Your task to perform on an android device: turn off data saver in the chrome app Image 0: 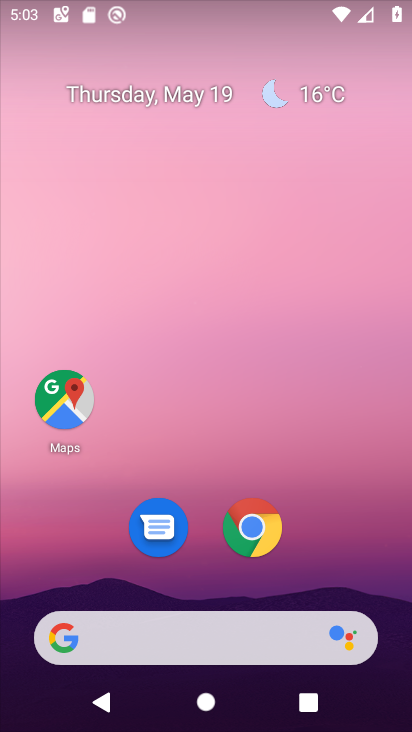
Step 0: click (258, 521)
Your task to perform on an android device: turn off data saver in the chrome app Image 1: 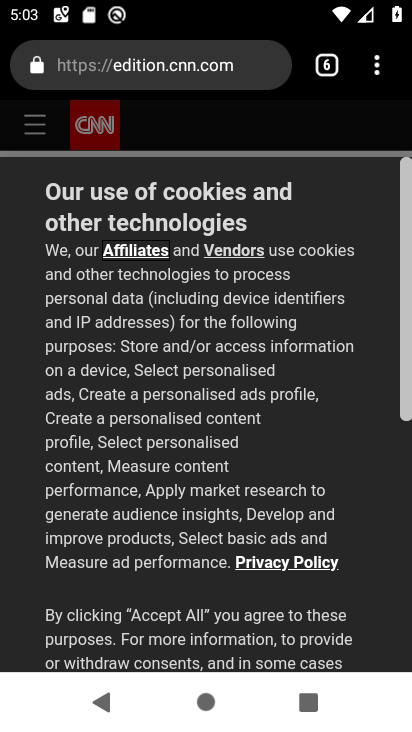
Step 1: click (365, 63)
Your task to perform on an android device: turn off data saver in the chrome app Image 2: 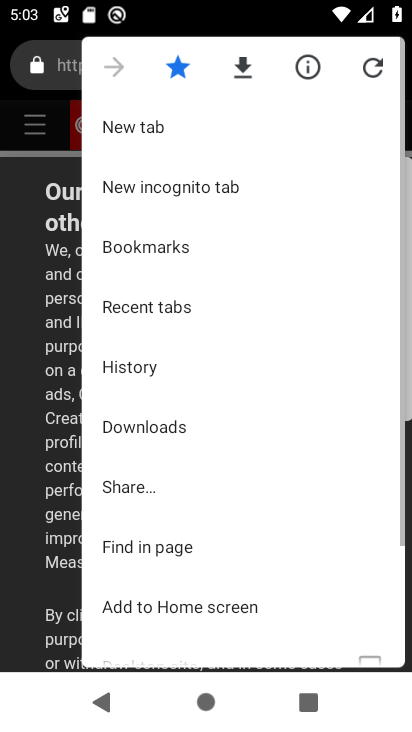
Step 2: drag from (223, 472) to (210, 102)
Your task to perform on an android device: turn off data saver in the chrome app Image 3: 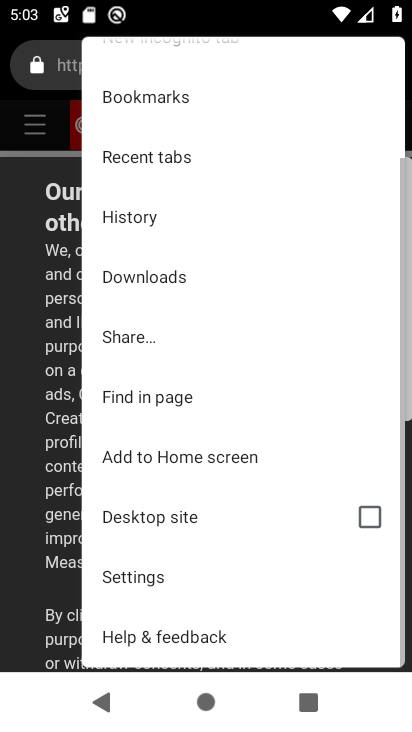
Step 3: click (191, 566)
Your task to perform on an android device: turn off data saver in the chrome app Image 4: 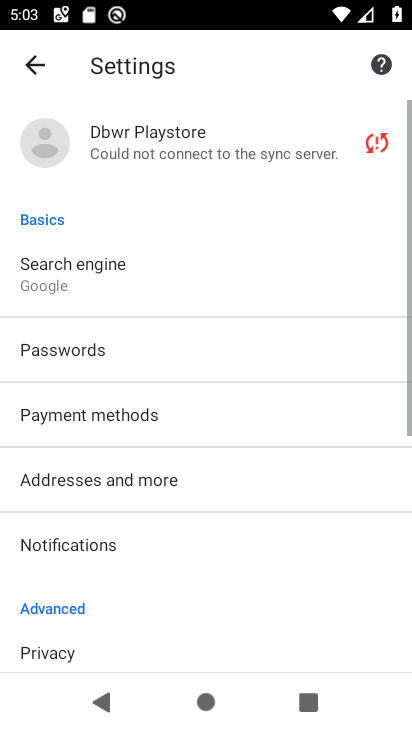
Step 4: drag from (239, 503) to (180, 153)
Your task to perform on an android device: turn off data saver in the chrome app Image 5: 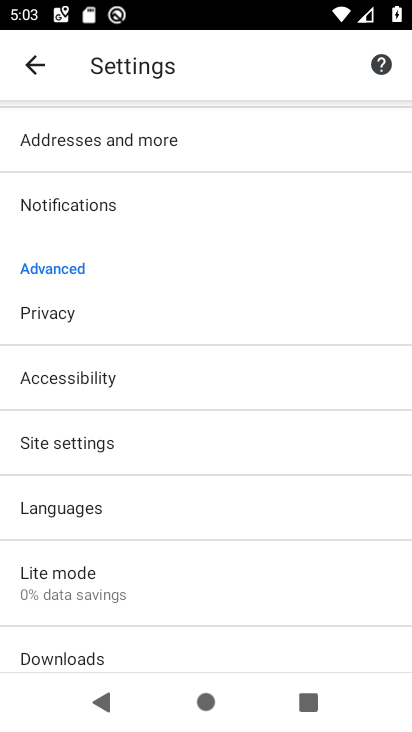
Step 5: click (126, 564)
Your task to perform on an android device: turn off data saver in the chrome app Image 6: 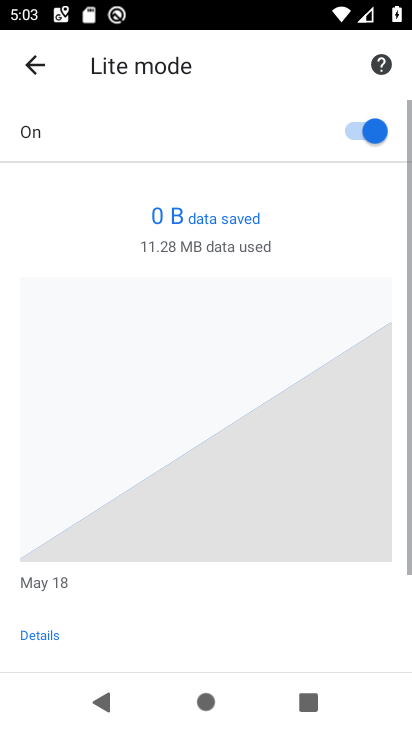
Step 6: click (363, 128)
Your task to perform on an android device: turn off data saver in the chrome app Image 7: 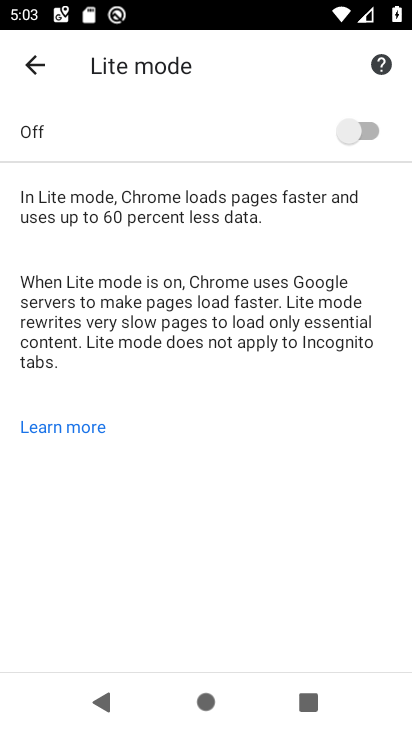
Step 7: task complete